Your task to perform on an android device: turn smart compose on in the gmail app Image 0: 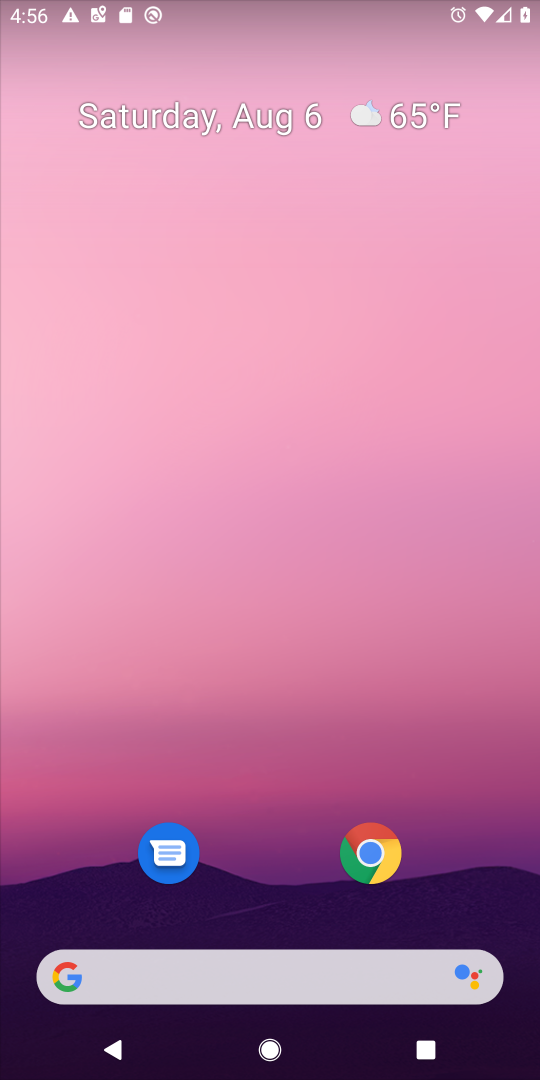
Step 0: drag from (243, 851) to (338, 171)
Your task to perform on an android device: turn smart compose on in the gmail app Image 1: 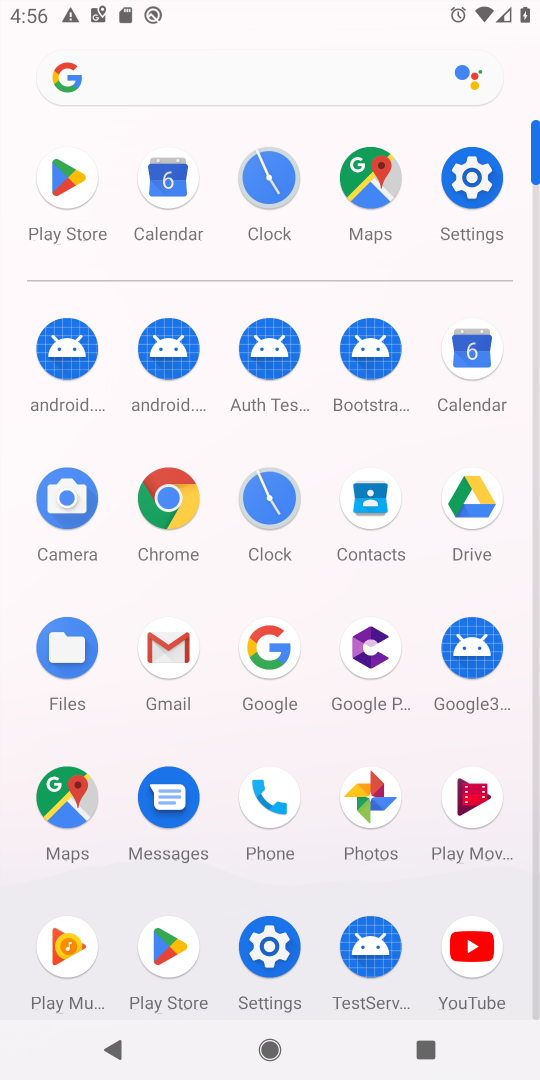
Step 1: click (163, 652)
Your task to perform on an android device: turn smart compose on in the gmail app Image 2: 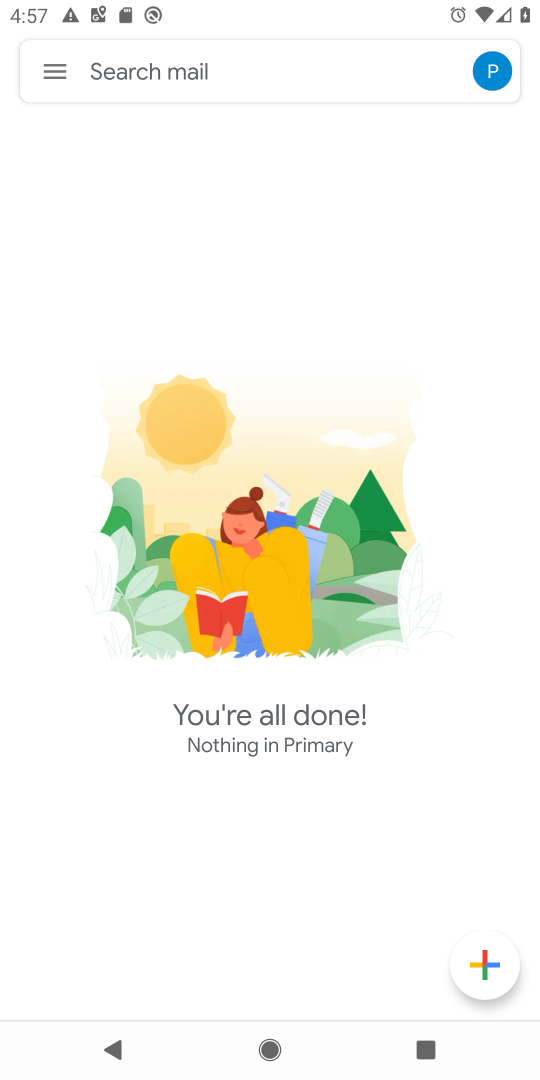
Step 2: click (47, 61)
Your task to perform on an android device: turn smart compose on in the gmail app Image 3: 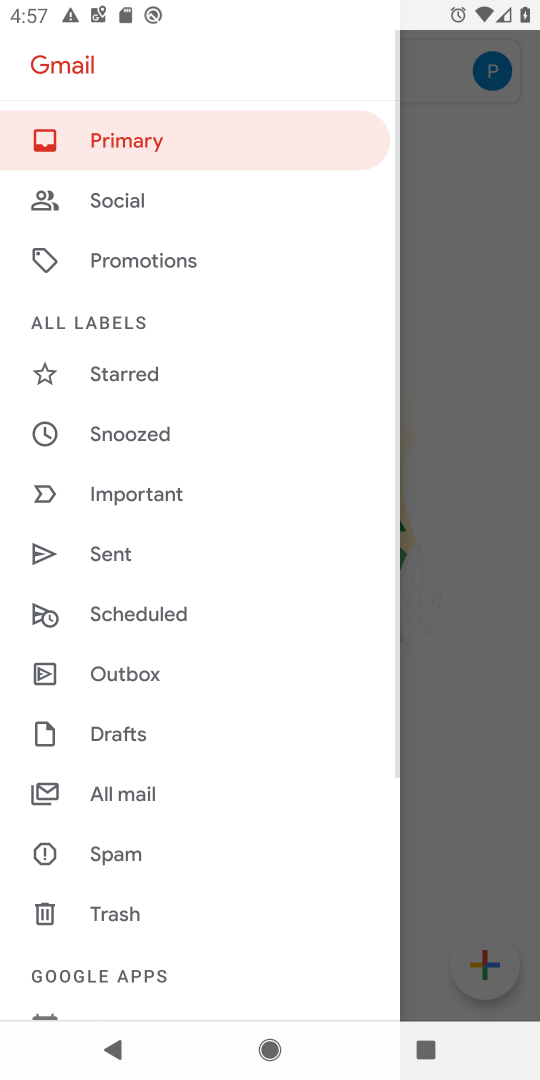
Step 3: drag from (184, 942) to (279, 74)
Your task to perform on an android device: turn smart compose on in the gmail app Image 4: 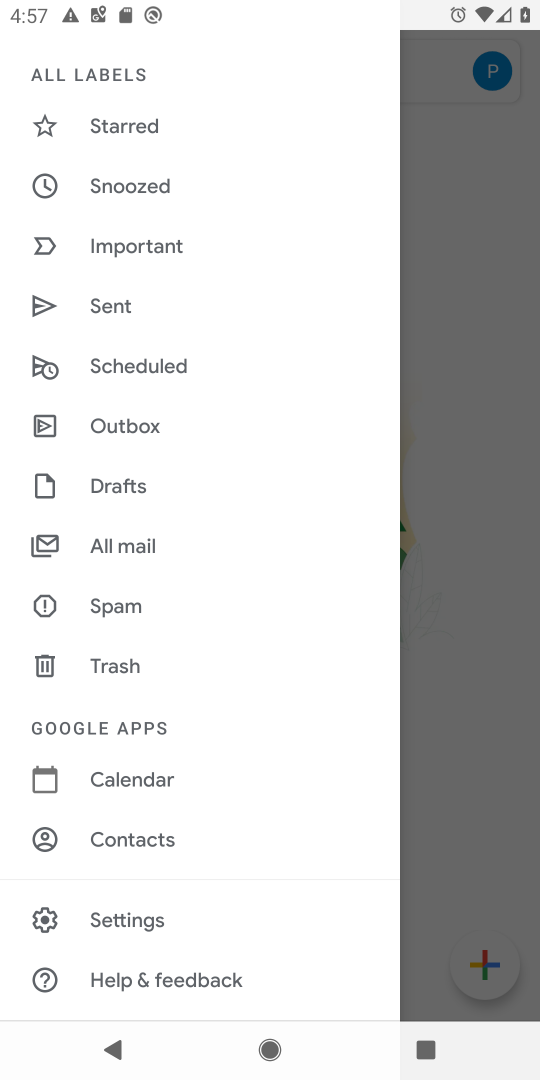
Step 4: click (136, 923)
Your task to perform on an android device: turn smart compose on in the gmail app Image 5: 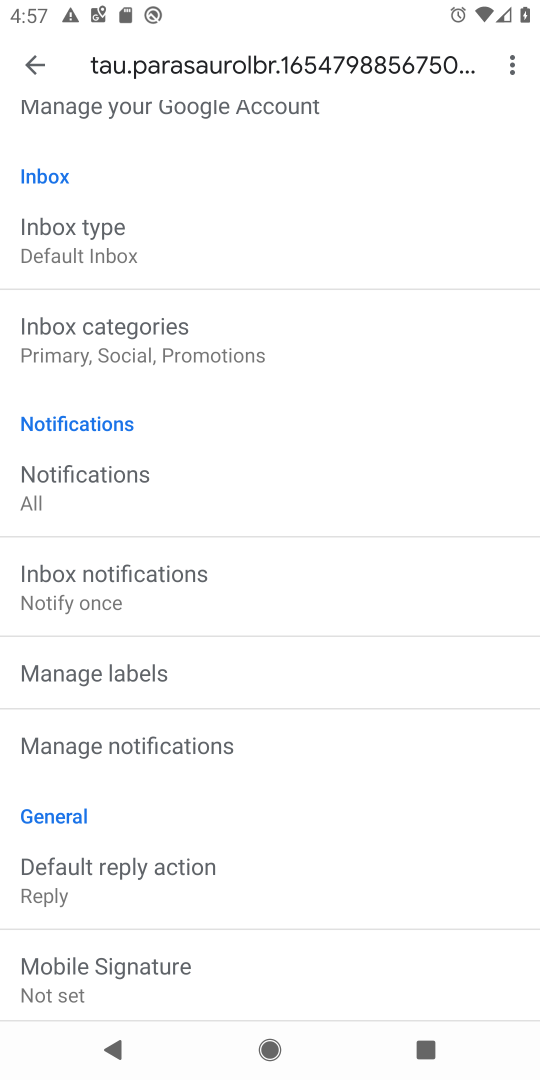
Step 5: task complete